Your task to perform on an android device: toggle data saver in the chrome app Image 0: 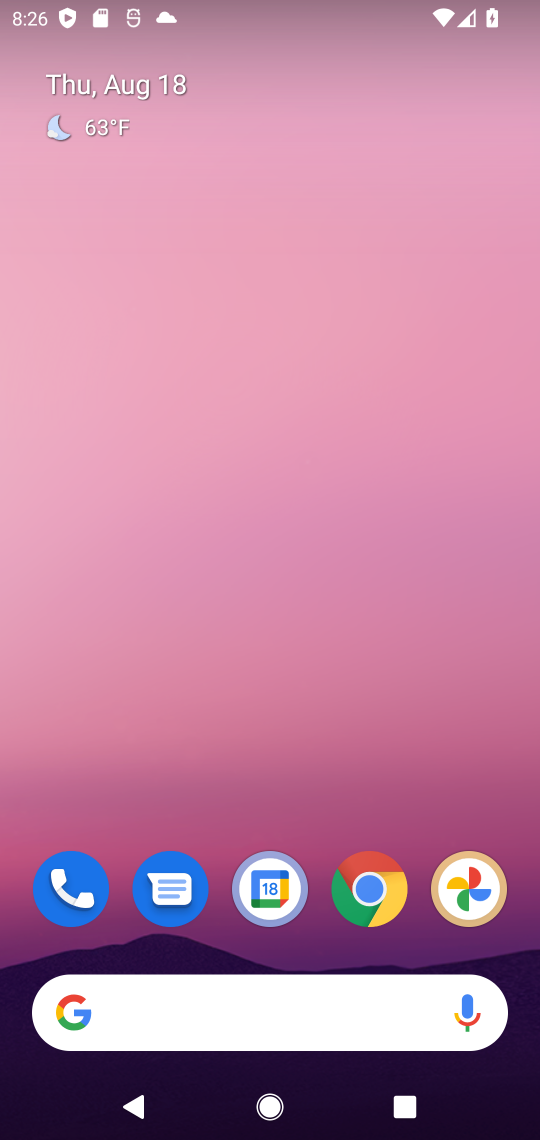
Step 0: press home button
Your task to perform on an android device: toggle data saver in the chrome app Image 1: 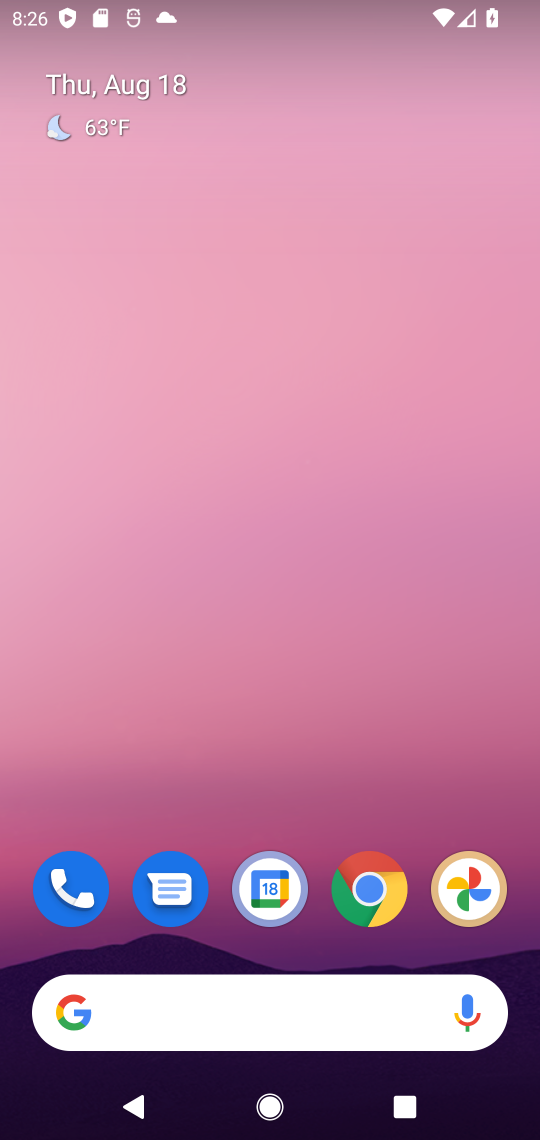
Step 1: click (390, 894)
Your task to perform on an android device: toggle data saver in the chrome app Image 2: 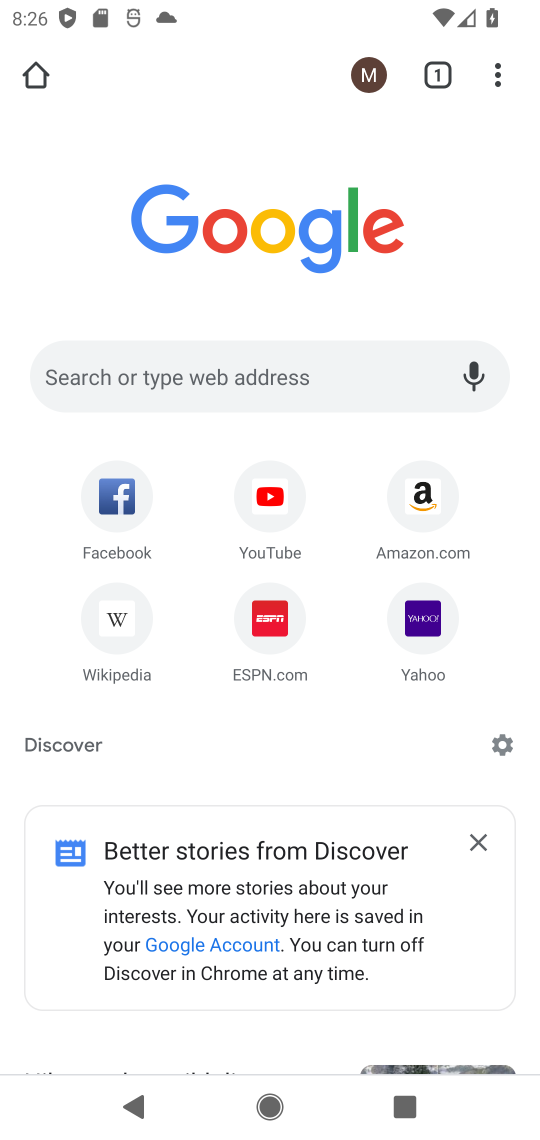
Step 2: drag from (489, 62) to (264, 708)
Your task to perform on an android device: toggle data saver in the chrome app Image 3: 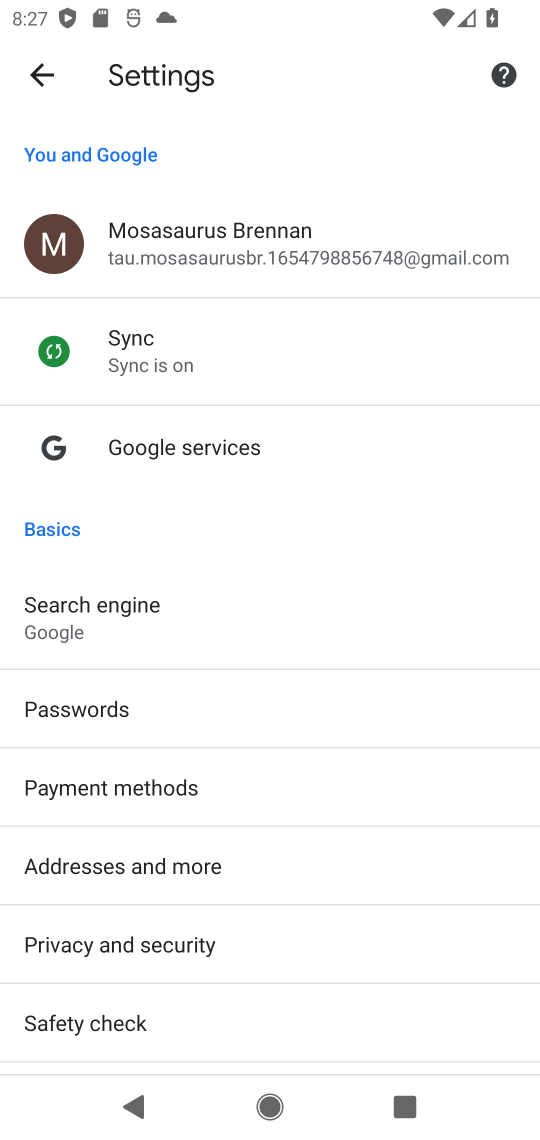
Step 3: drag from (244, 1000) to (265, 262)
Your task to perform on an android device: toggle data saver in the chrome app Image 4: 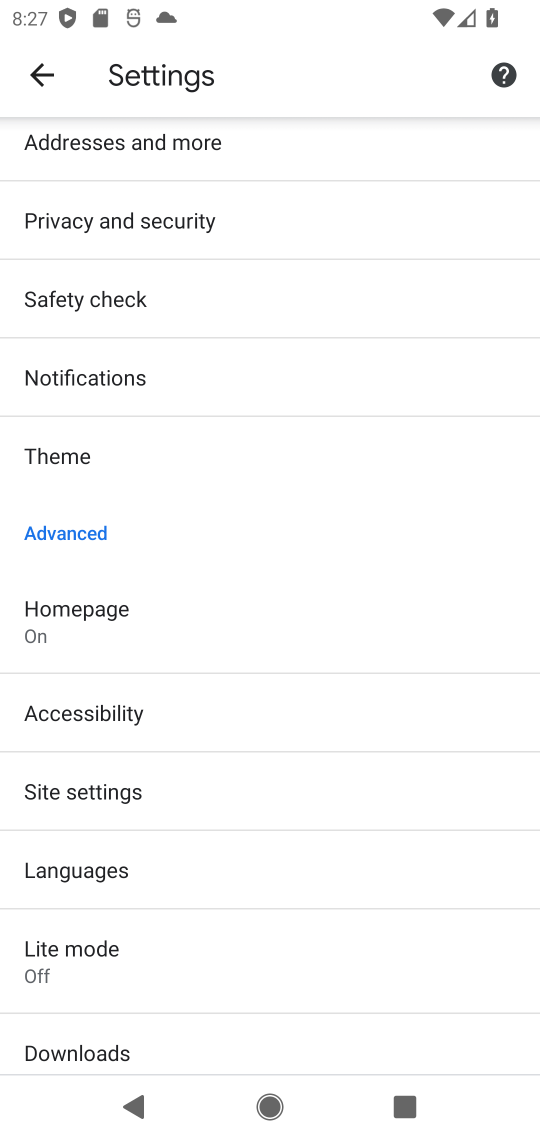
Step 4: click (124, 955)
Your task to perform on an android device: toggle data saver in the chrome app Image 5: 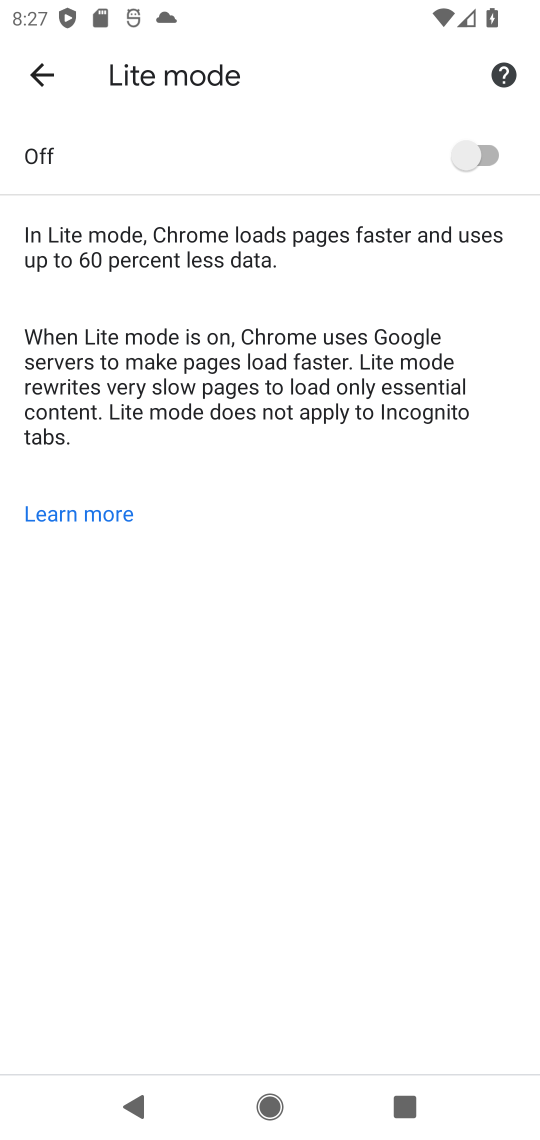
Step 5: click (481, 159)
Your task to perform on an android device: toggle data saver in the chrome app Image 6: 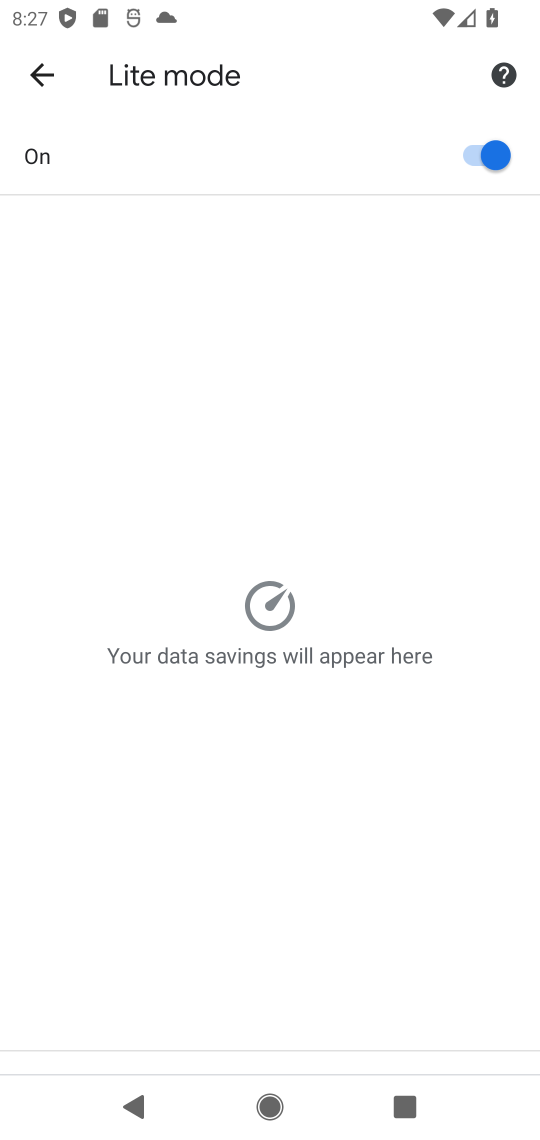
Step 6: task complete